Your task to perform on an android device: Show the shopping cart on ebay.com. Search for razer deathadder on ebay.com, select the first entry, add it to the cart, then select checkout. Image 0: 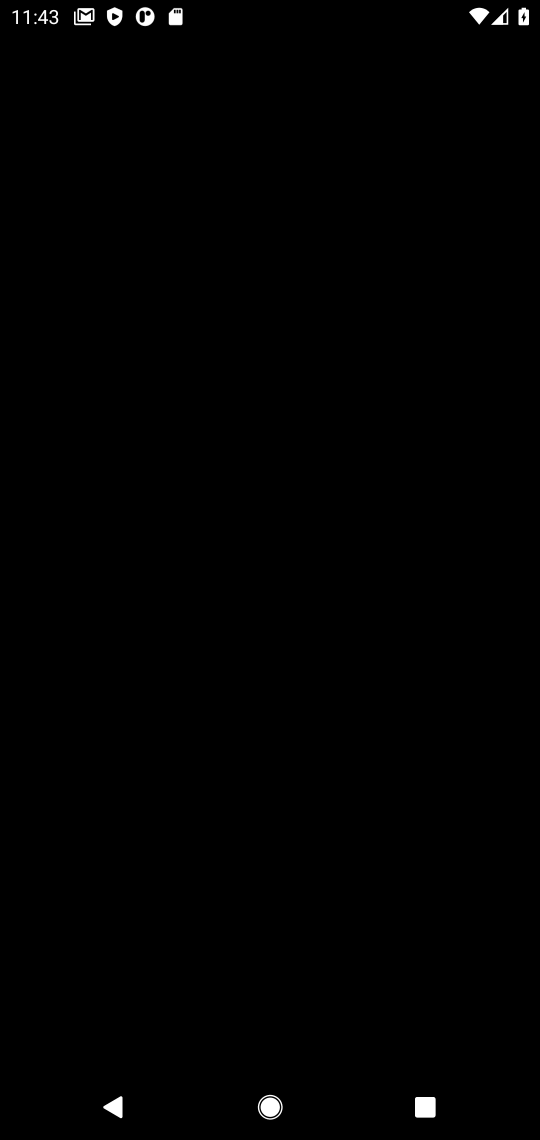
Step 0: press home button
Your task to perform on an android device: Show the shopping cart on ebay.com. Search for razer deathadder on ebay.com, select the first entry, add it to the cart, then select checkout. Image 1: 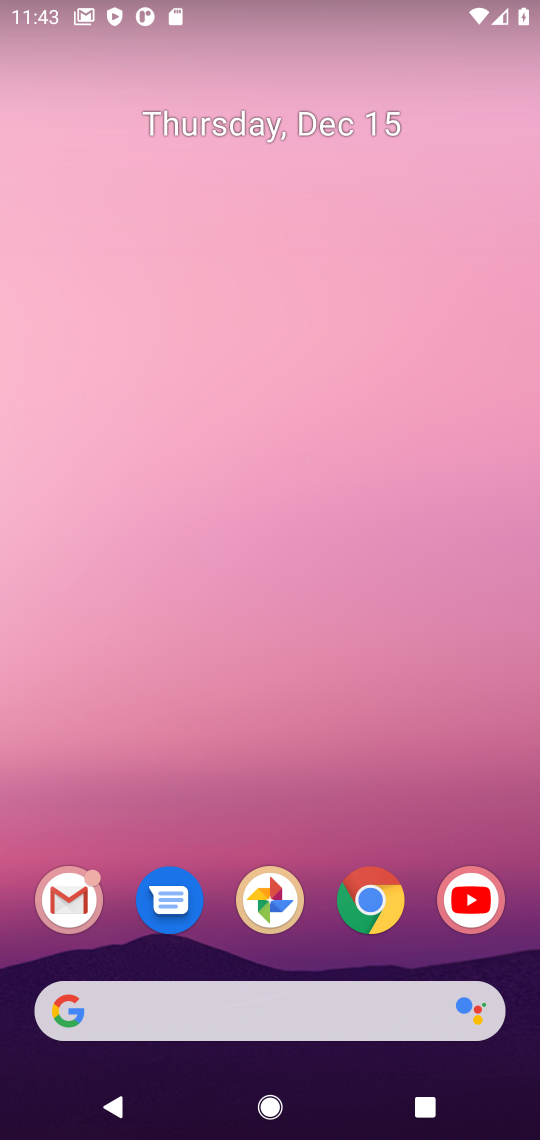
Step 1: click (370, 906)
Your task to perform on an android device: Show the shopping cart on ebay.com. Search for razer deathadder on ebay.com, select the first entry, add it to the cart, then select checkout. Image 2: 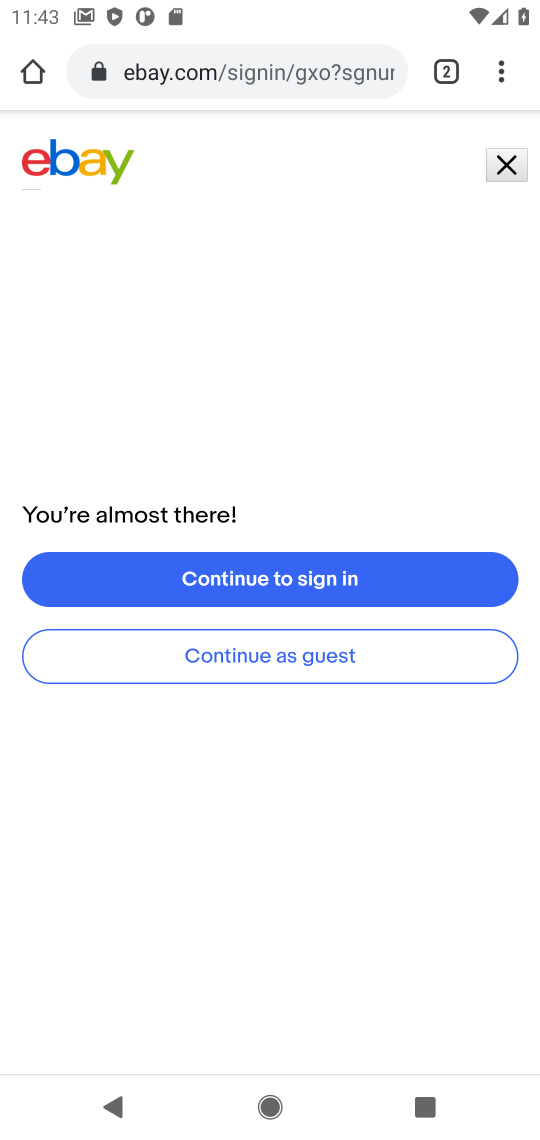
Step 2: click (507, 157)
Your task to perform on an android device: Show the shopping cart on ebay.com. Search for razer deathadder on ebay.com, select the first entry, add it to the cart, then select checkout. Image 3: 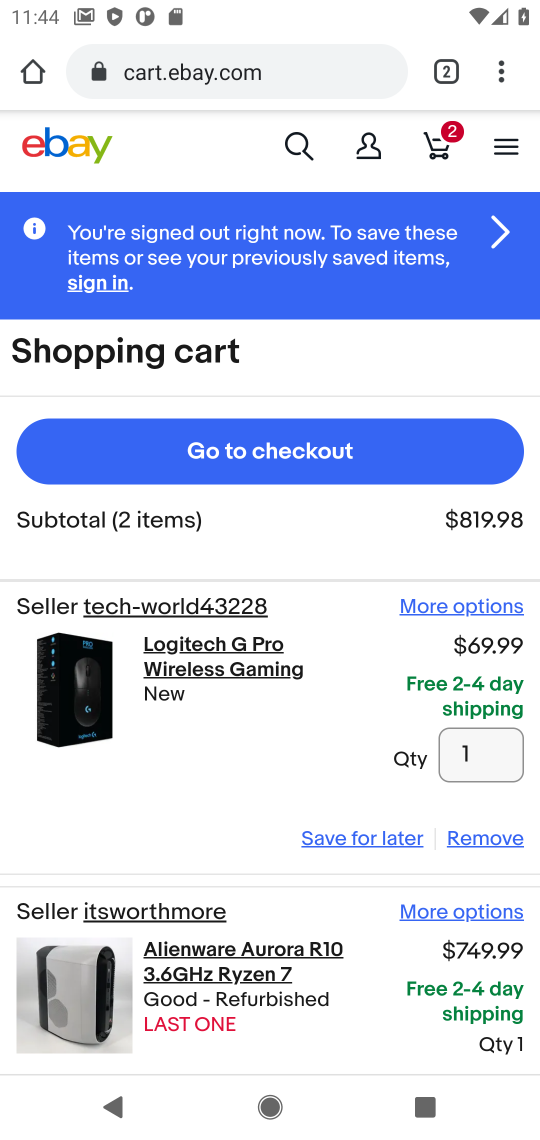
Step 3: click (302, 145)
Your task to perform on an android device: Show the shopping cart on ebay.com. Search for razer deathadder on ebay.com, select the first entry, add it to the cart, then select checkout. Image 4: 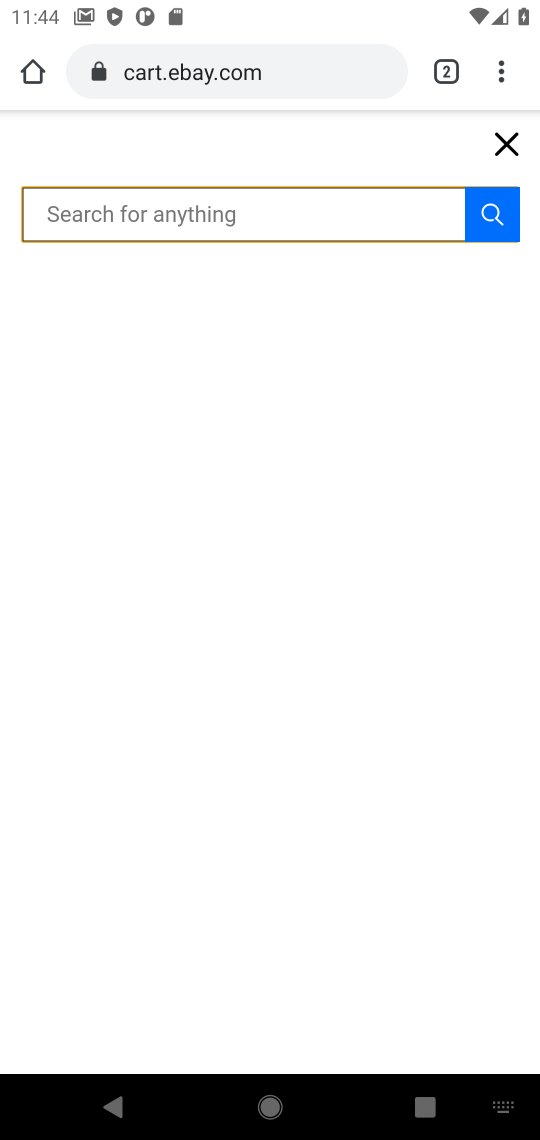
Step 4: press enter
Your task to perform on an android device: Show the shopping cart on ebay.com. Search for razer deathadder on ebay.com, select the first entry, add it to the cart, then select checkout. Image 5: 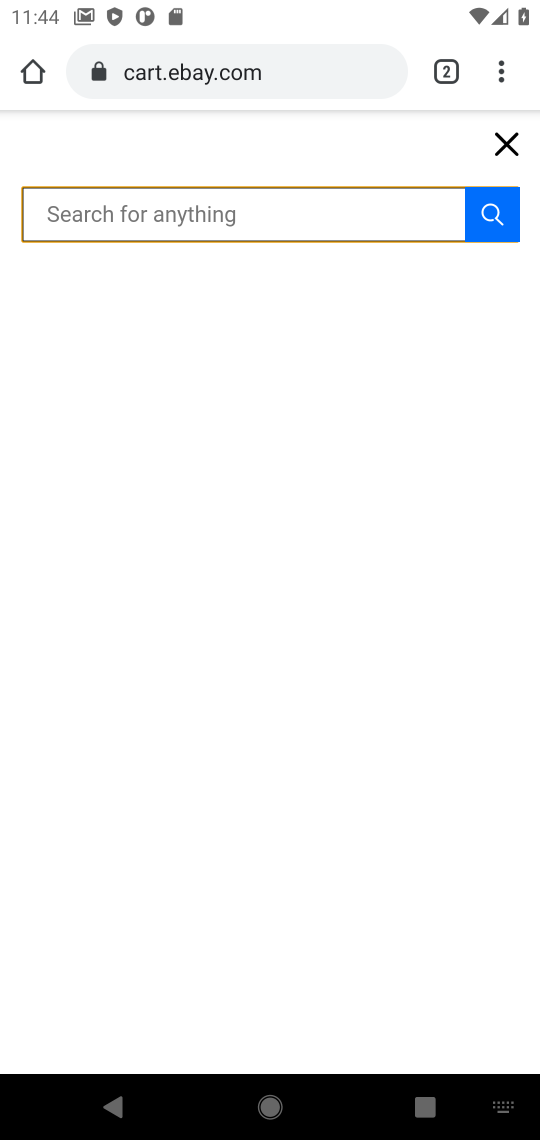
Step 5: type " razer deathadder"
Your task to perform on an android device: Show the shopping cart on ebay.com. Search for razer deathadder on ebay.com, select the first entry, add it to the cart, then select checkout. Image 6: 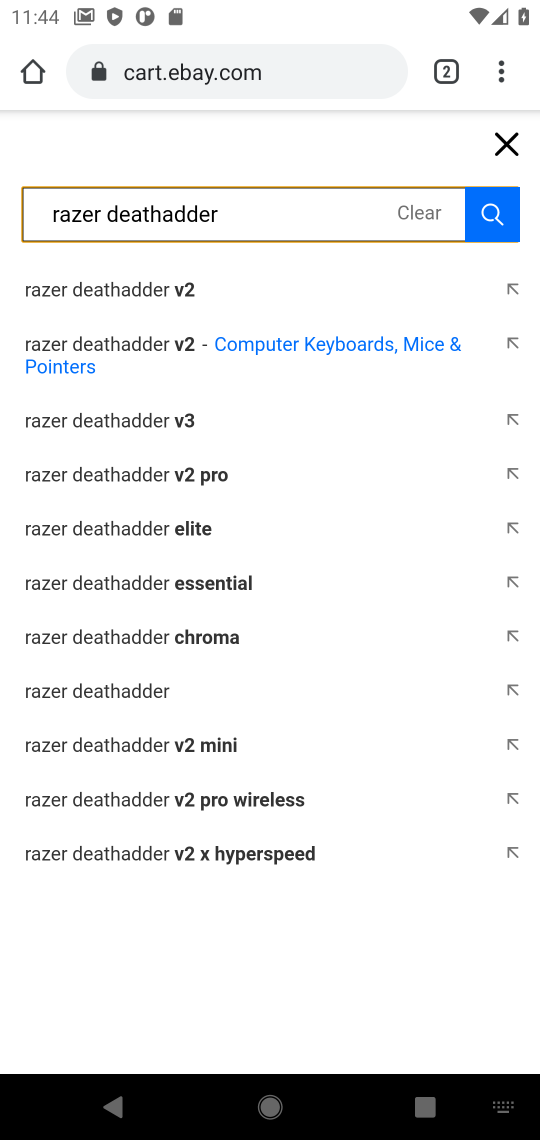
Step 6: click (122, 687)
Your task to perform on an android device: Show the shopping cart on ebay.com. Search for razer deathadder on ebay.com, select the first entry, add it to the cart, then select checkout. Image 7: 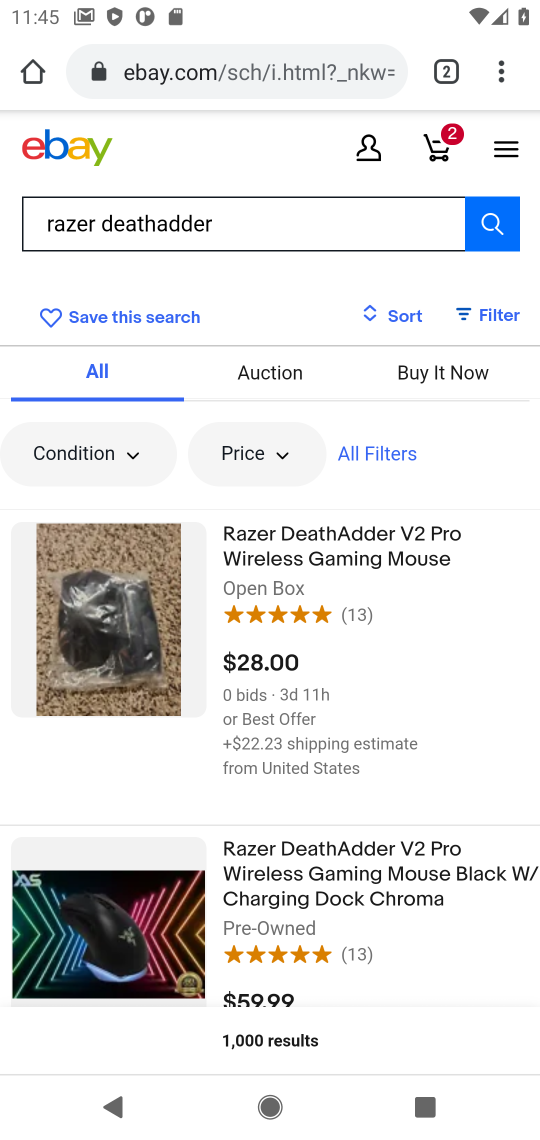
Step 7: click (122, 687)
Your task to perform on an android device: Show the shopping cart on ebay.com. Search for razer deathadder on ebay.com, select the first entry, add it to the cart, then select checkout. Image 8: 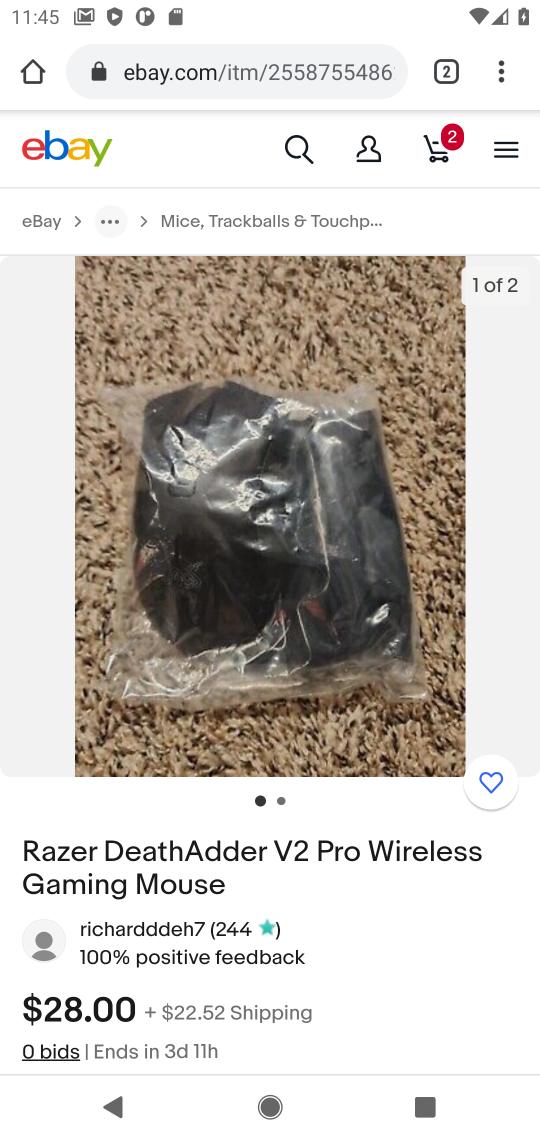
Step 8: drag from (408, 983) to (415, 538)
Your task to perform on an android device: Show the shopping cart on ebay.com. Search for razer deathadder on ebay.com, select the first entry, add it to the cart, then select checkout. Image 9: 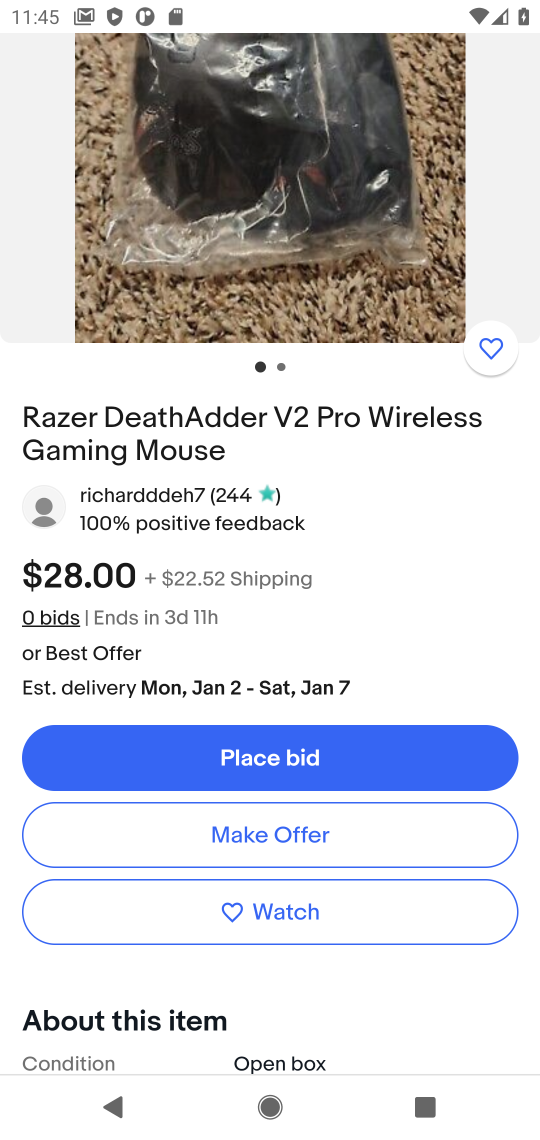
Step 9: press back button
Your task to perform on an android device: Show the shopping cart on ebay.com. Search for razer deathadder on ebay.com, select the first entry, add it to the cart, then select checkout. Image 10: 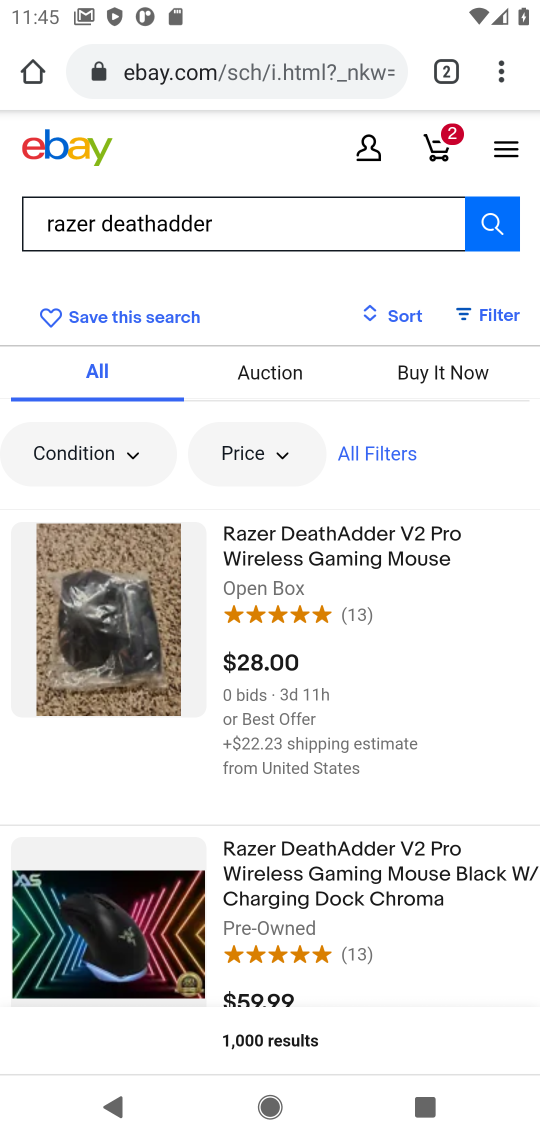
Step 10: click (78, 931)
Your task to perform on an android device: Show the shopping cart on ebay.com. Search for razer deathadder on ebay.com, select the first entry, add it to the cart, then select checkout. Image 11: 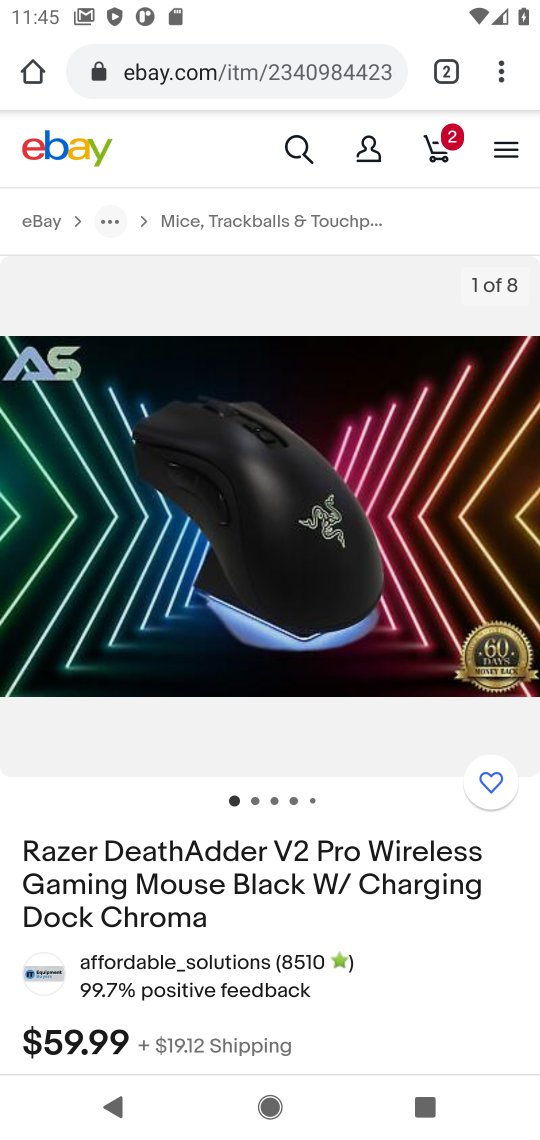
Step 11: drag from (335, 912) to (469, 358)
Your task to perform on an android device: Show the shopping cart on ebay.com. Search for razer deathadder on ebay.com, select the first entry, add it to the cart, then select checkout. Image 12: 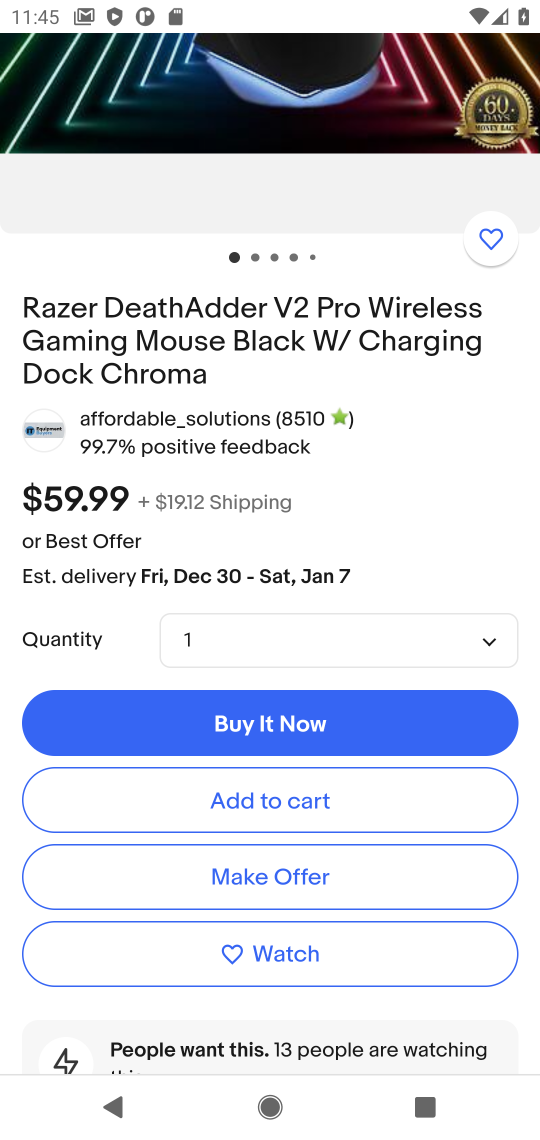
Step 12: click (309, 798)
Your task to perform on an android device: Show the shopping cart on ebay.com. Search for razer deathadder on ebay.com, select the first entry, add it to the cart, then select checkout. Image 13: 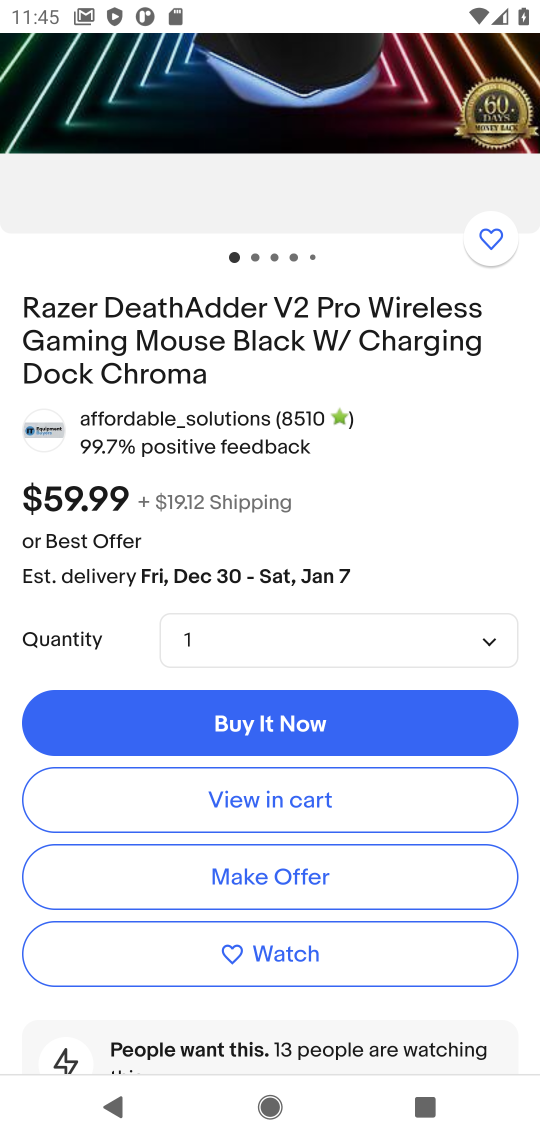
Step 13: click (211, 796)
Your task to perform on an android device: Show the shopping cart on ebay.com. Search for razer deathadder on ebay.com, select the first entry, add it to the cart, then select checkout. Image 14: 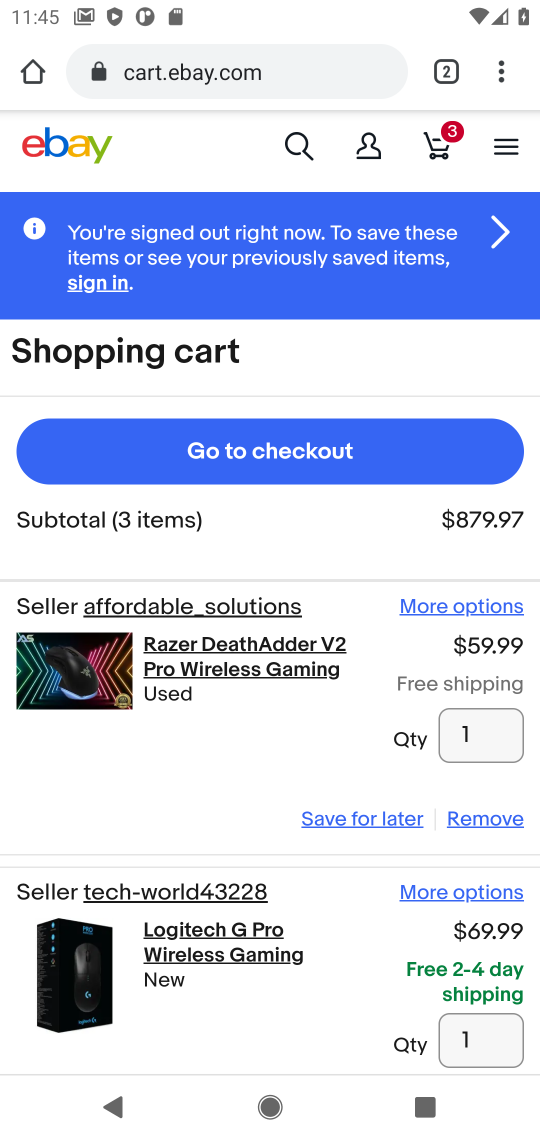
Step 14: click (272, 445)
Your task to perform on an android device: Show the shopping cart on ebay.com. Search for razer deathadder on ebay.com, select the first entry, add it to the cart, then select checkout. Image 15: 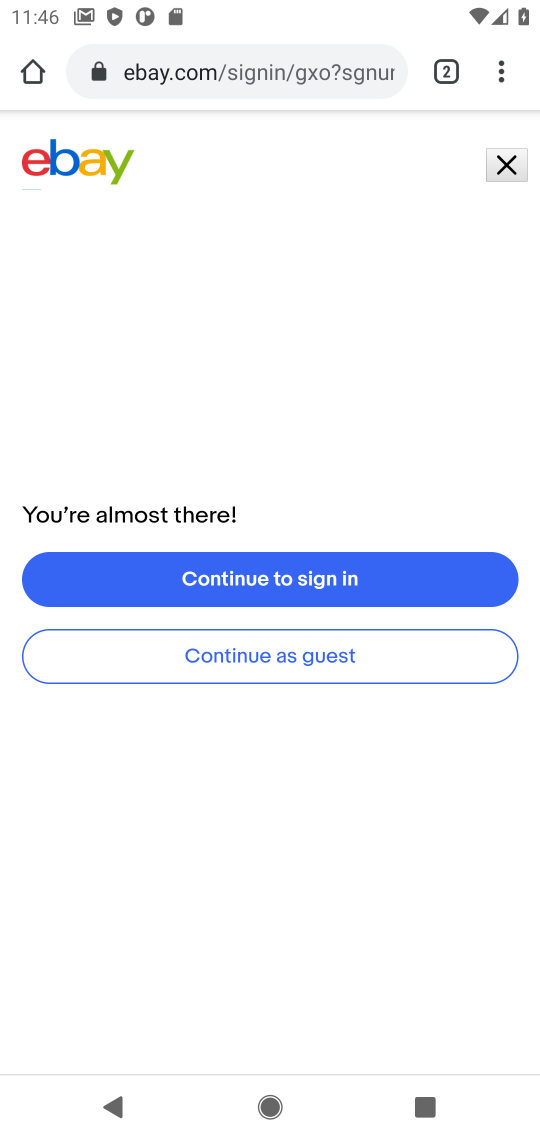
Step 15: task complete